Your task to perform on an android device: Go to location settings Image 0: 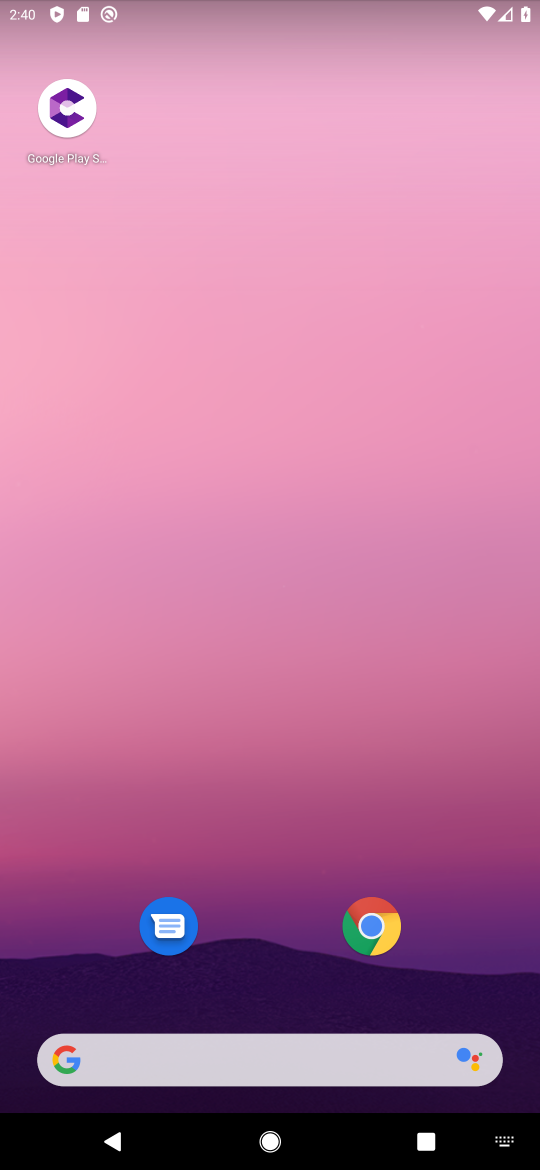
Step 0: drag from (520, 1082) to (479, 390)
Your task to perform on an android device: Go to location settings Image 1: 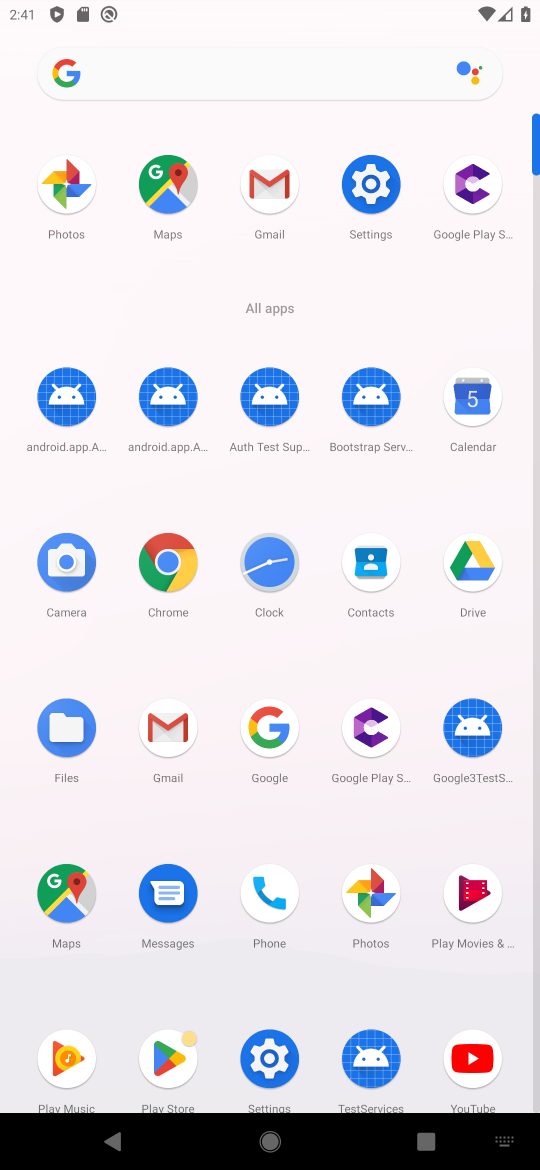
Step 1: click (256, 1046)
Your task to perform on an android device: Go to location settings Image 2: 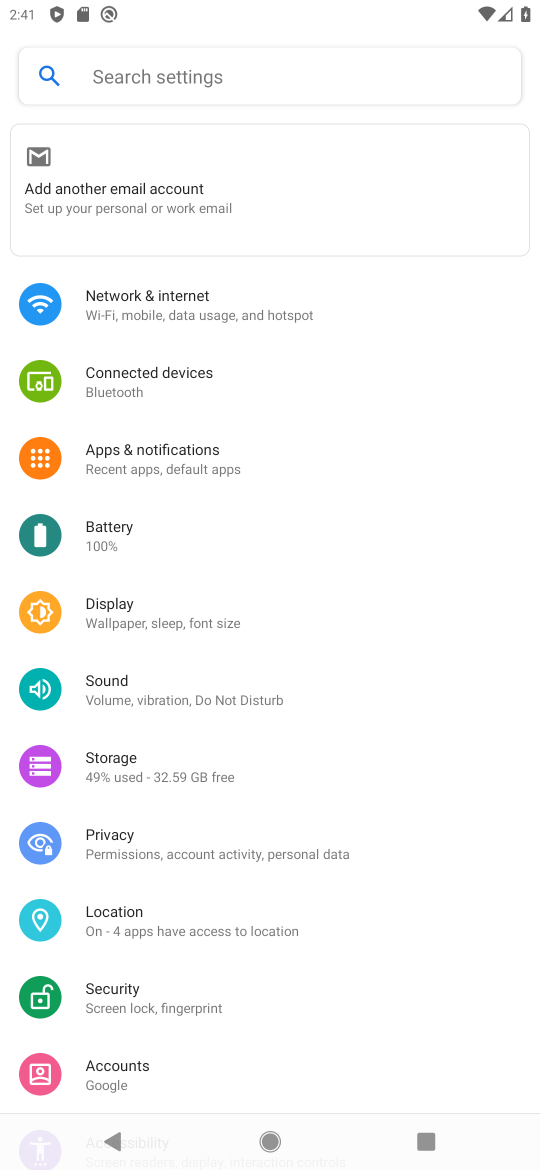
Step 2: click (124, 919)
Your task to perform on an android device: Go to location settings Image 3: 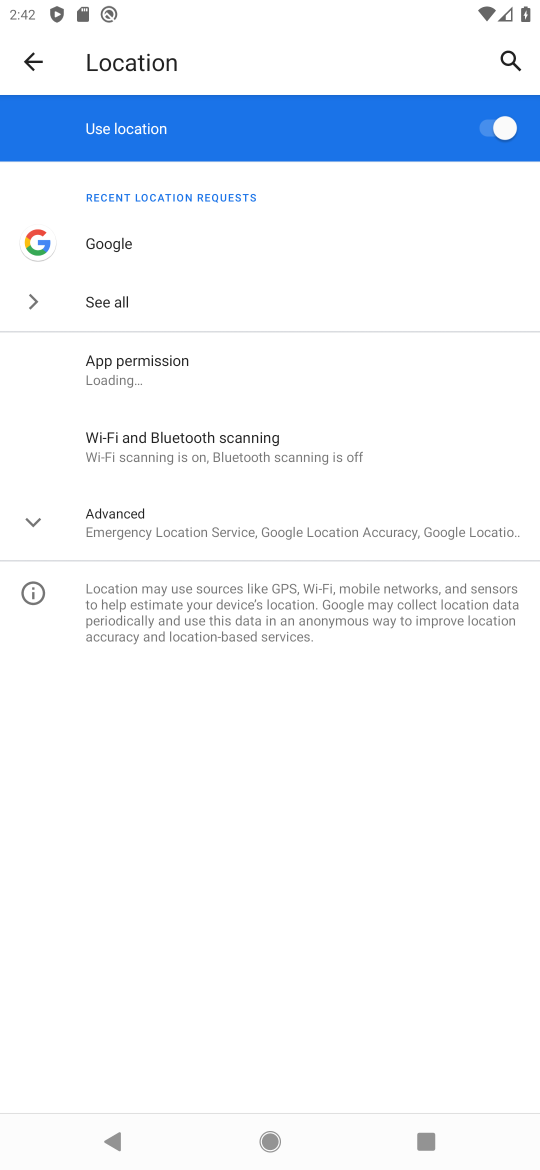
Step 3: click (38, 509)
Your task to perform on an android device: Go to location settings Image 4: 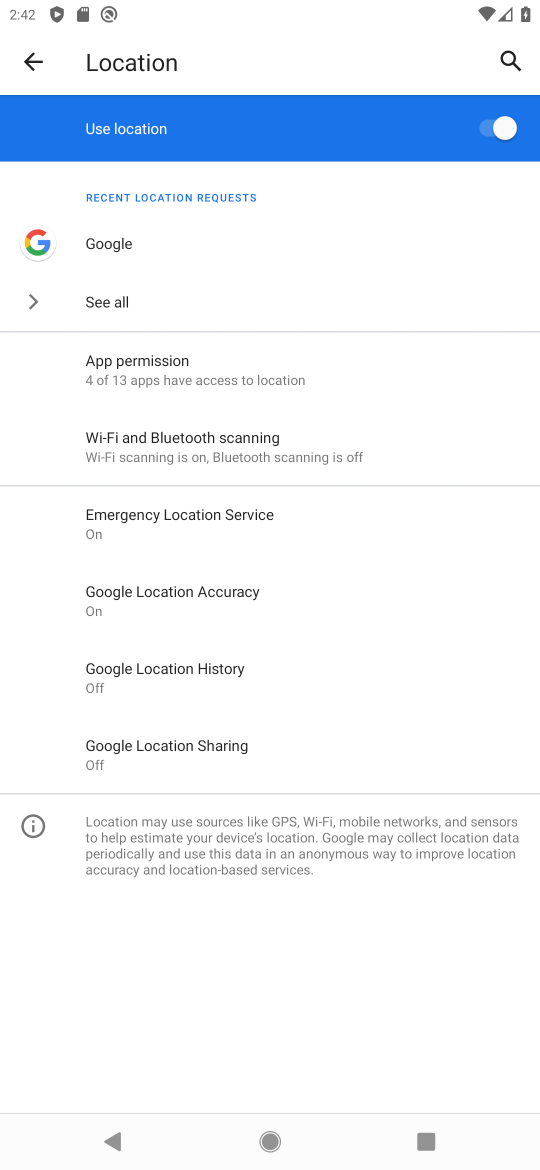
Step 4: task complete